Your task to perform on an android device: toggle notifications settings in the gmail app Image 0: 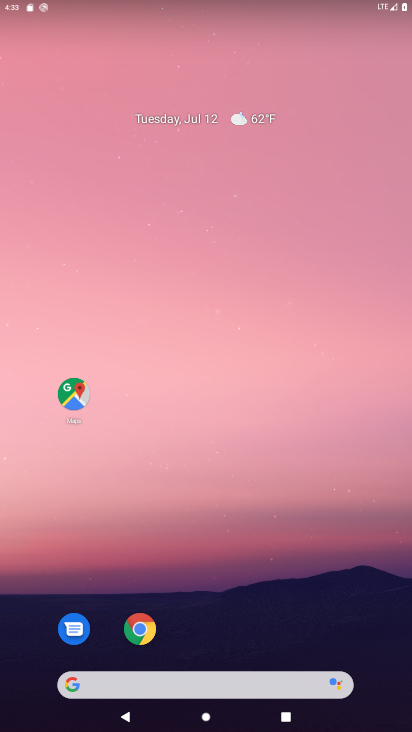
Step 0: drag from (351, 630) to (343, 96)
Your task to perform on an android device: toggle notifications settings in the gmail app Image 1: 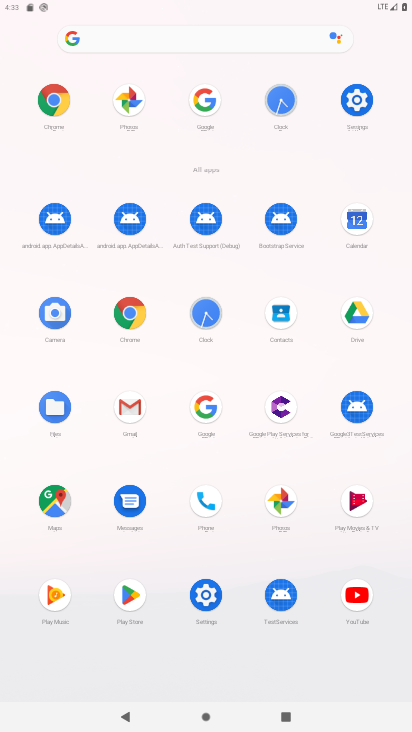
Step 1: click (125, 413)
Your task to perform on an android device: toggle notifications settings in the gmail app Image 2: 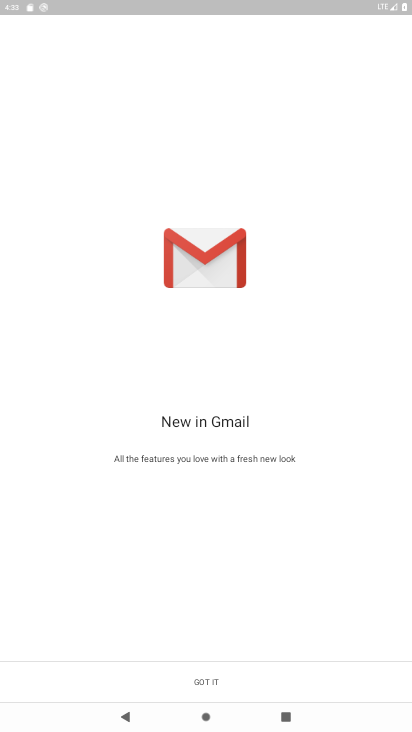
Step 2: click (213, 680)
Your task to perform on an android device: toggle notifications settings in the gmail app Image 3: 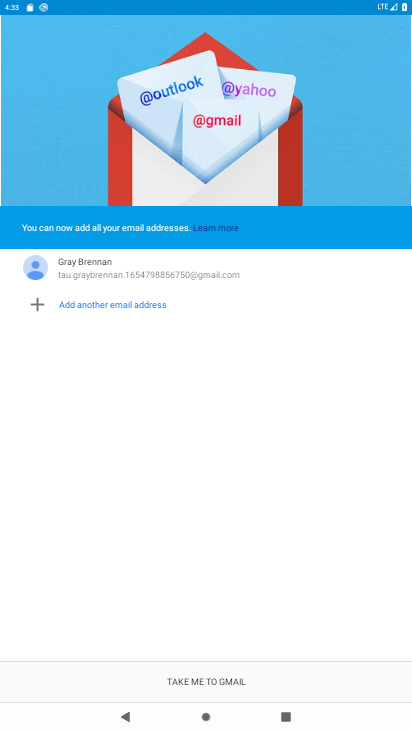
Step 3: click (213, 680)
Your task to perform on an android device: toggle notifications settings in the gmail app Image 4: 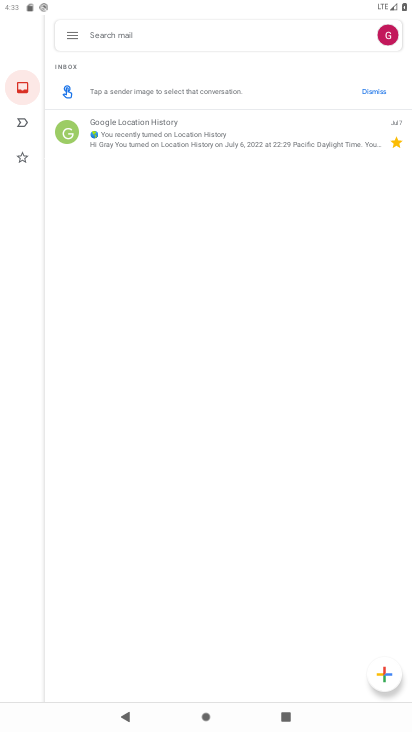
Step 4: click (64, 44)
Your task to perform on an android device: toggle notifications settings in the gmail app Image 5: 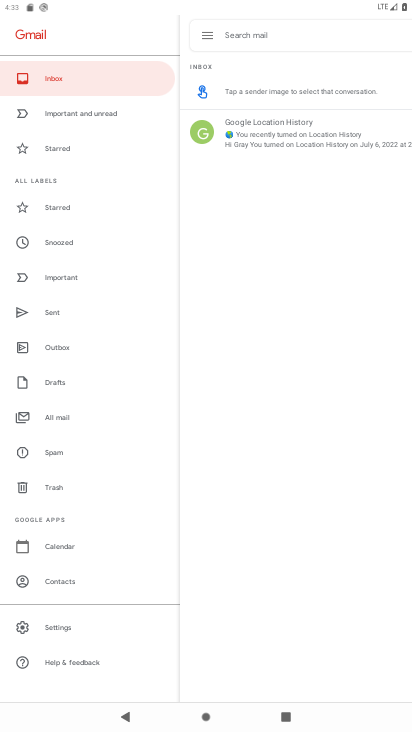
Step 5: click (69, 631)
Your task to perform on an android device: toggle notifications settings in the gmail app Image 6: 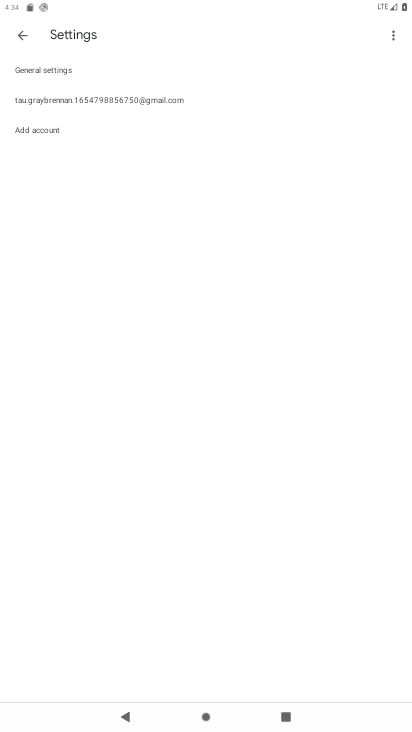
Step 6: click (70, 105)
Your task to perform on an android device: toggle notifications settings in the gmail app Image 7: 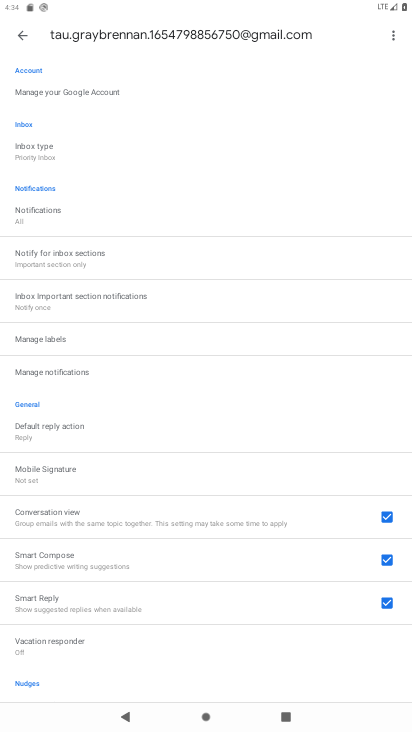
Step 7: click (41, 215)
Your task to perform on an android device: toggle notifications settings in the gmail app Image 8: 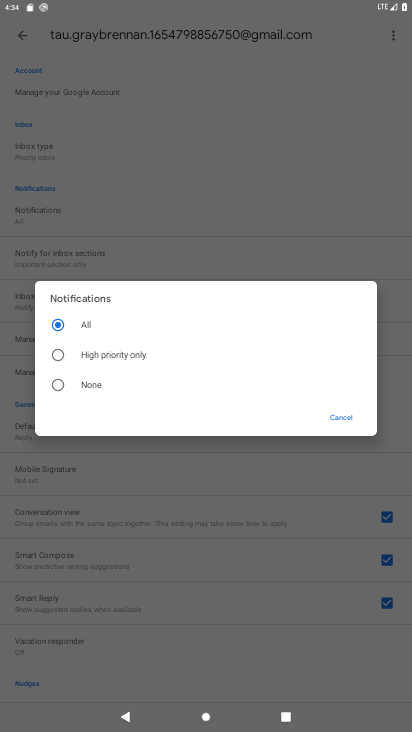
Step 8: click (60, 349)
Your task to perform on an android device: toggle notifications settings in the gmail app Image 9: 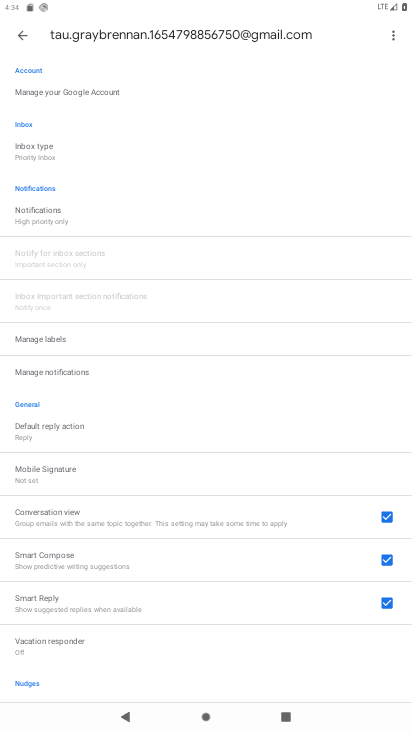
Step 9: task complete